Your task to perform on an android device: Open maps Image 0: 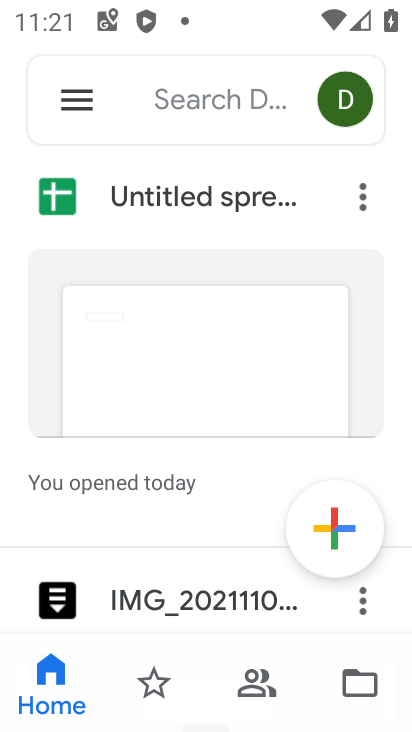
Step 0: press home button
Your task to perform on an android device: Open maps Image 1: 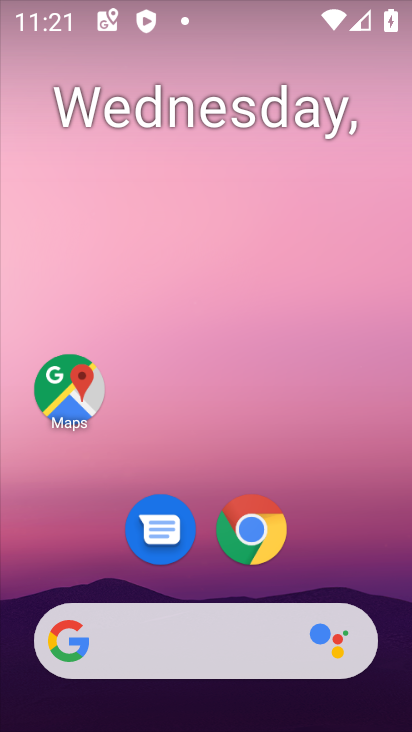
Step 1: drag from (223, 591) to (238, 21)
Your task to perform on an android device: Open maps Image 2: 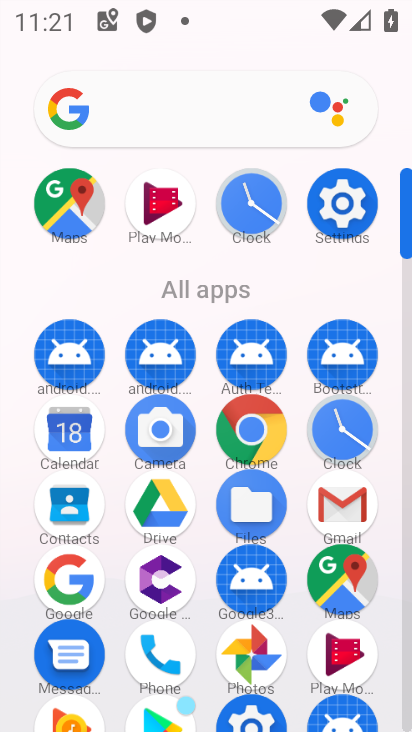
Step 2: click (87, 212)
Your task to perform on an android device: Open maps Image 3: 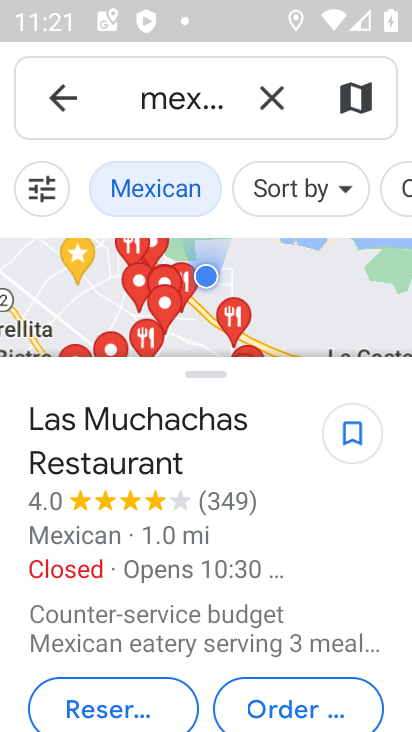
Step 3: task complete